Your task to perform on an android device: delete a single message in the gmail app Image 0: 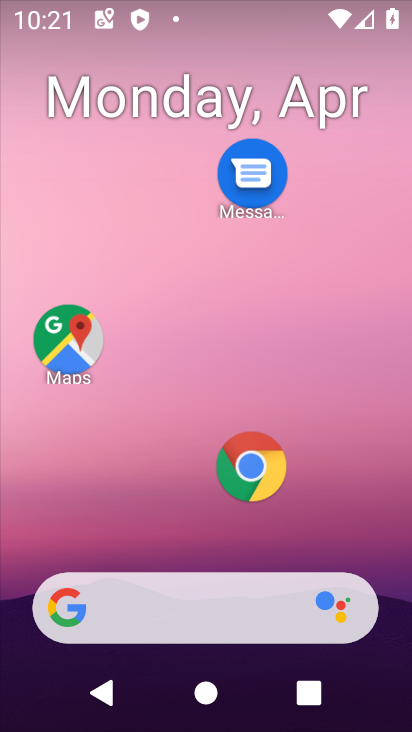
Step 0: drag from (171, 422) to (186, 11)
Your task to perform on an android device: delete a single message in the gmail app Image 1: 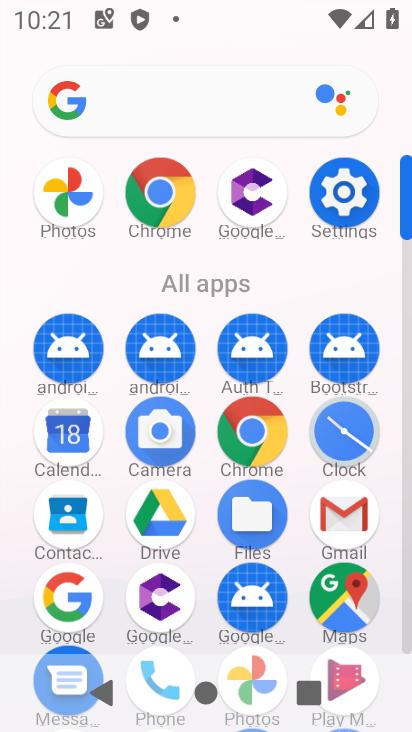
Step 1: click (337, 502)
Your task to perform on an android device: delete a single message in the gmail app Image 2: 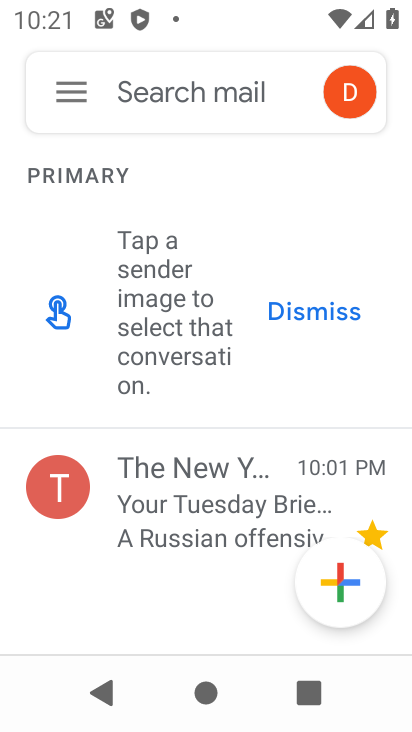
Step 2: click (180, 494)
Your task to perform on an android device: delete a single message in the gmail app Image 3: 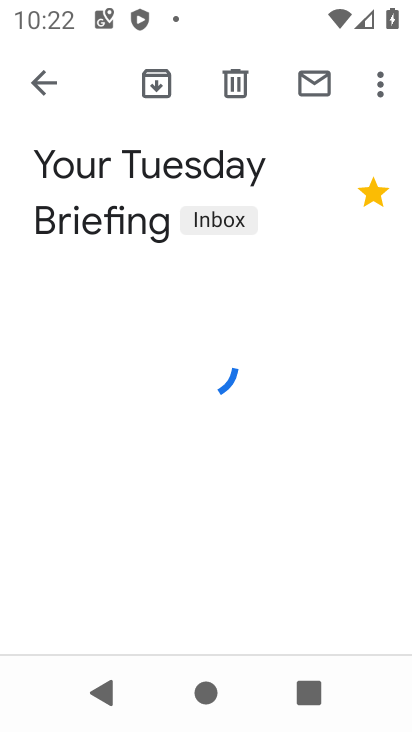
Step 3: click (236, 83)
Your task to perform on an android device: delete a single message in the gmail app Image 4: 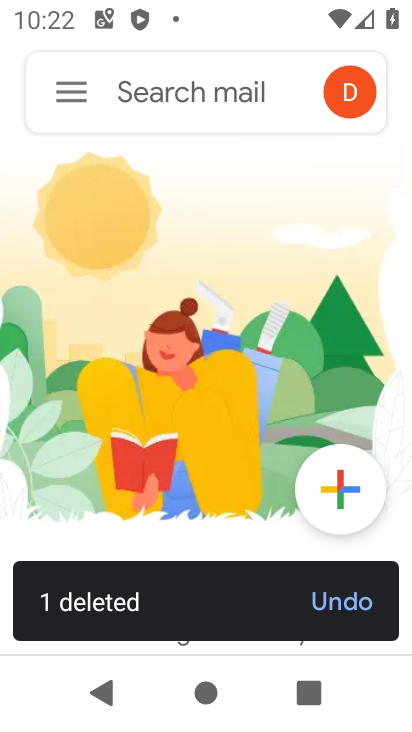
Step 4: task complete